Your task to perform on an android device: Turn off notifications for the Google Maps app Image 0: 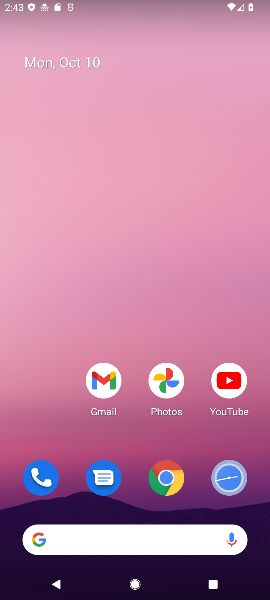
Step 0: drag from (128, 452) to (120, 38)
Your task to perform on an android device: Turn off notifications for the Google Maps app Image 1: 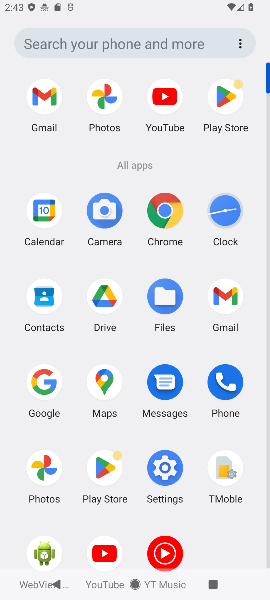
Step 1: click (167, 461)
Your task to perform on an android device: Turn off notifications for the Google Maps app Image 2: 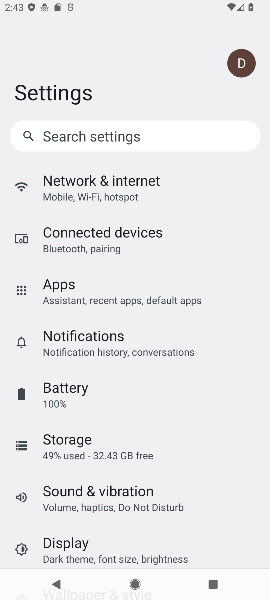
Step 2: click (156, 347)
Your task to perform on an android device: Turn off notifications for the Google Maps app Image 3: 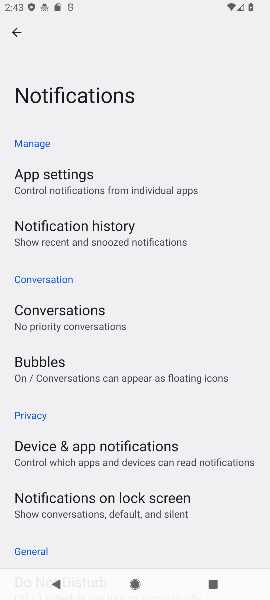
Step 3: click (69, 167)
Your task to perform on an android device: Turn off notifications for the Google Maps app Image 4: 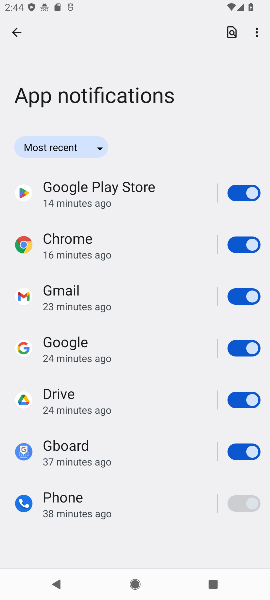
Step 4: click (76, 149)
Your task to perform on an android device: Turn off notifications for the Google Maps app Image 5: 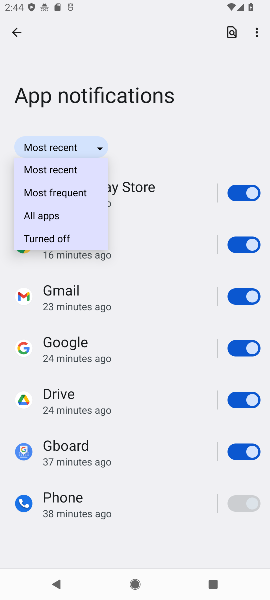
Step 5: click (34, 214)
Your task to perform on an android device: Turn off notifications for the Google Maps app Image 6: 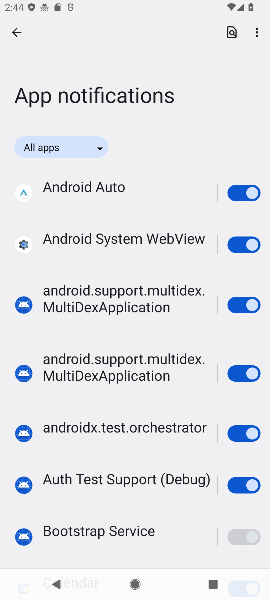
Step 6: drag from (79, 541) to (53, 22)
Your task to perform on an android device: Turn off notifications for the Google Maps app Image 7: 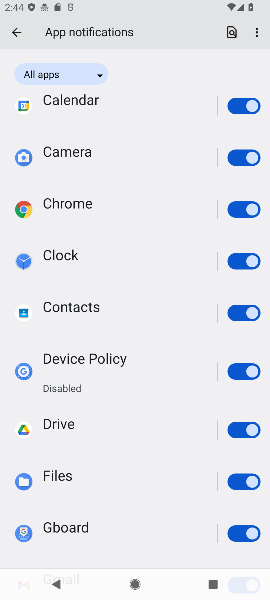
Step 7: drag from (59, 501) to (73, 158)
Your task to perform on an android device: Turn off notifications for the Google Maps app Image 8: 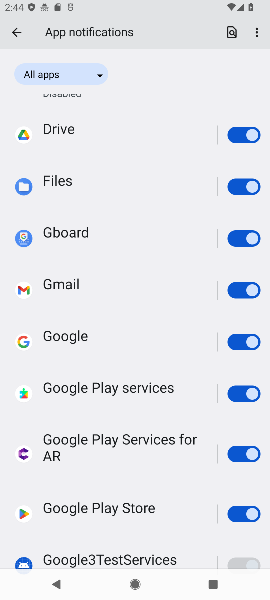
Step 8: drag from (151, 149) to (158, 38)
Your task to perform on an android device: Turn off notifications for the Google Maps app Image 9: 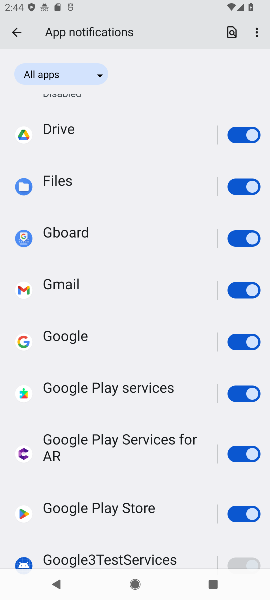
Step 9: drag from (89, 541) to (133, 200)
Your task to perform on an android device: Turn off notifications for the Google Maps app Image 10: 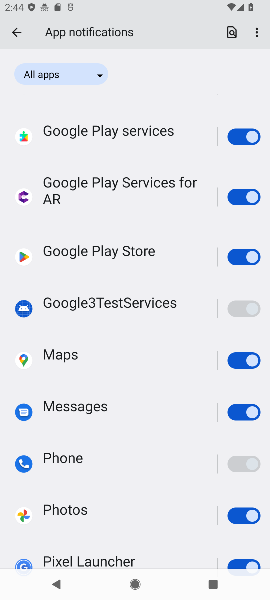
Step 10: click (245, 362)
Your task to perform on an android device: Turn off notifications for the Google Maps app Image 11: 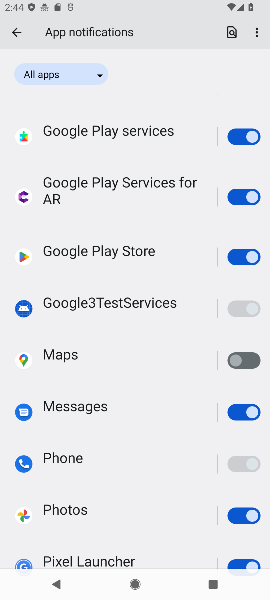
Step 11: task complete